Your task to perform on an android device: Go to privacy settings Image 0: 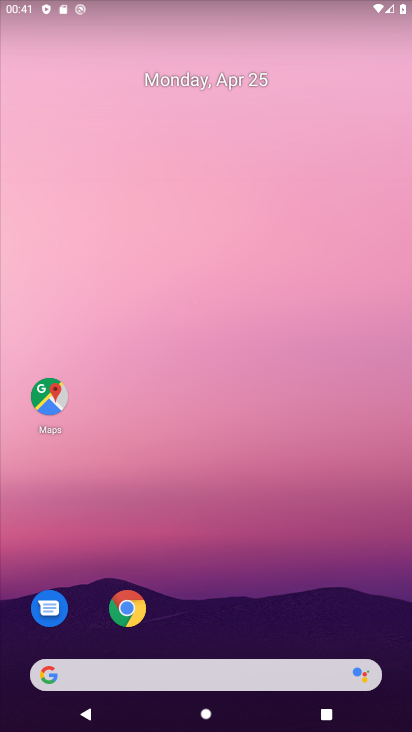
Step 0: drag from (213, 634) to (186, 49)
Your task to perform on an android device: Go to privacy settings Image 1: 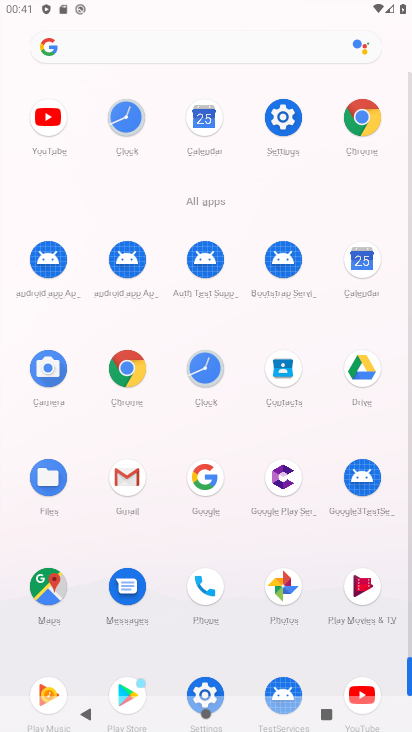
Step 1: click (365, 121)
Your task to perform on an android device: Go to privacy settings Image 2: 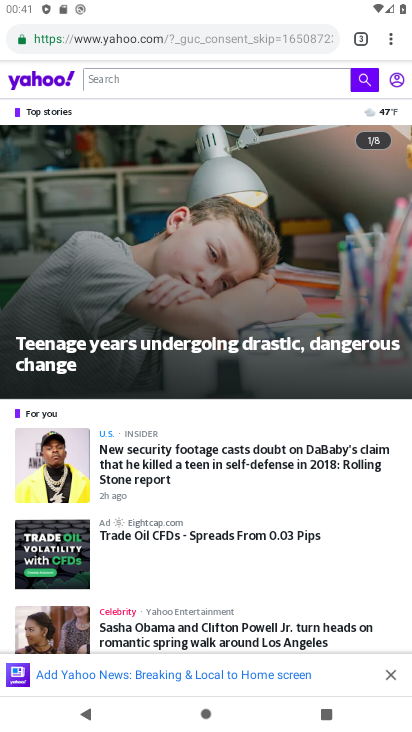
Step 2: drag from (391, 46) to (267, 464)
Your task to perform on an android device: Go to privacy settings Image 3: 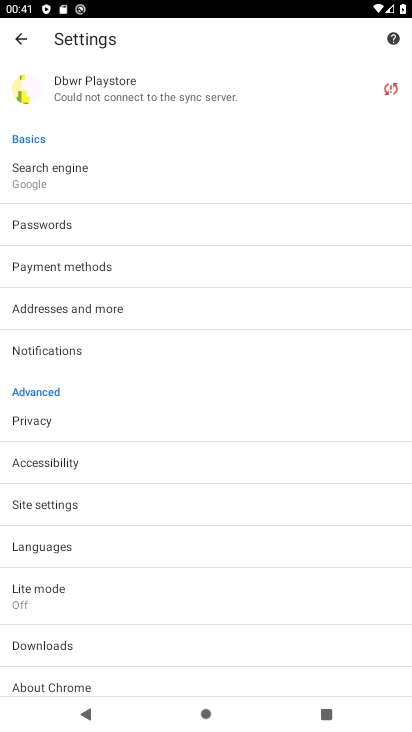
Step 3: click (223, 428)
Your task to perform on an android device: Go to privacy settings Image 4: 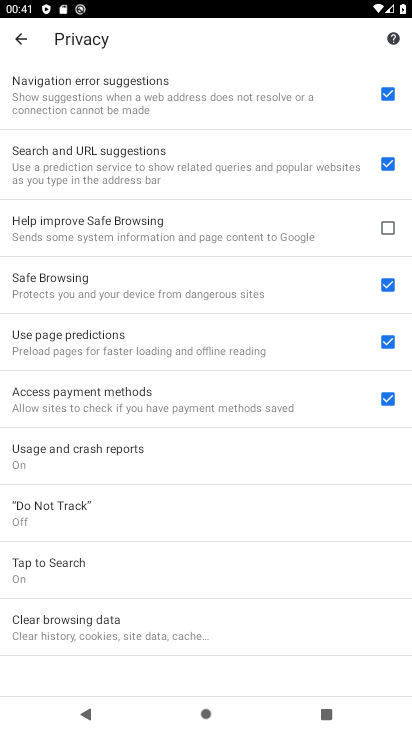
Step 4: task complete